Your task to perform on an android device: Add jbl flip 4 to the cart on ebay.com, then select checkout. Image 0: 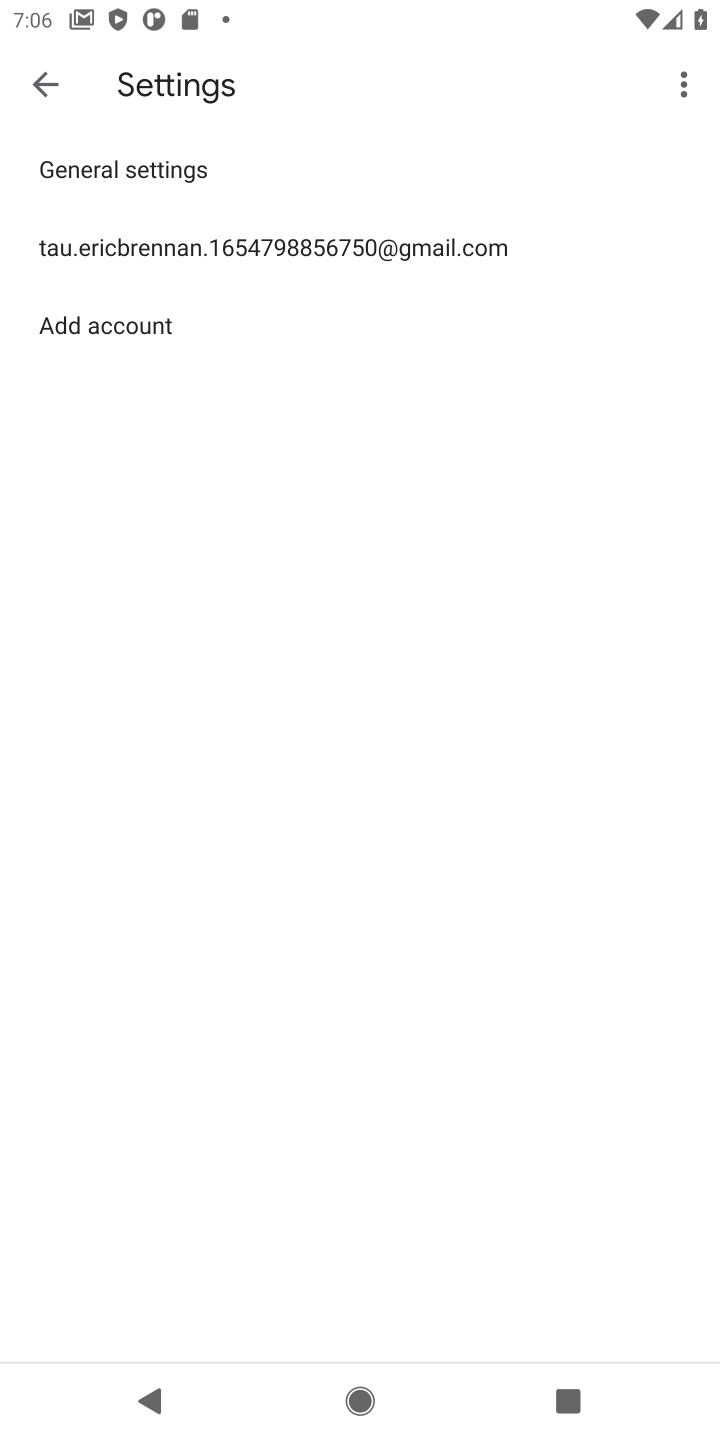
Step 0: press home button
Your task to perform on an android device: Add jbl flip 4 to the cart on ebay.com, then select checkout. Image 1: 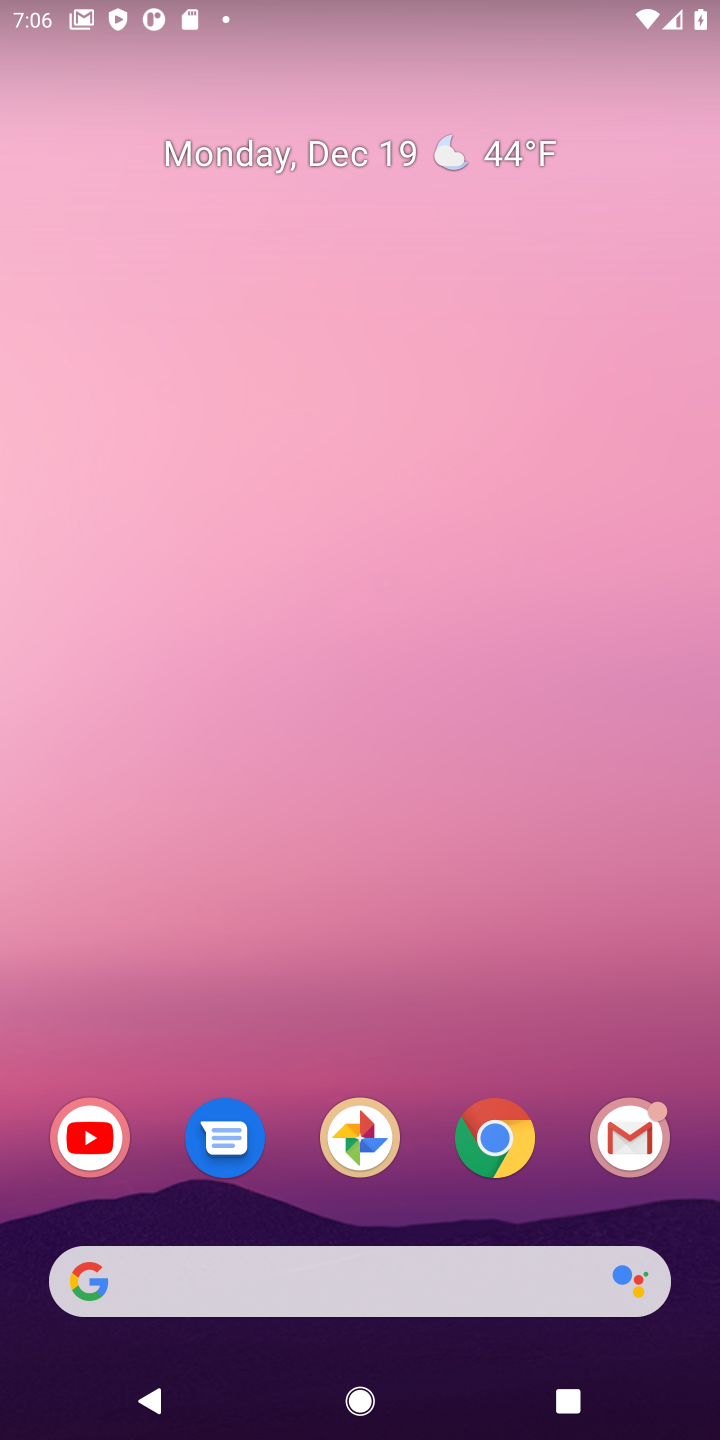
Step 1: click (487, 1154)
Your task to perform on an android device: Add jbl flip 4 to the cart on ebay.com, then select checkout. Image 2: 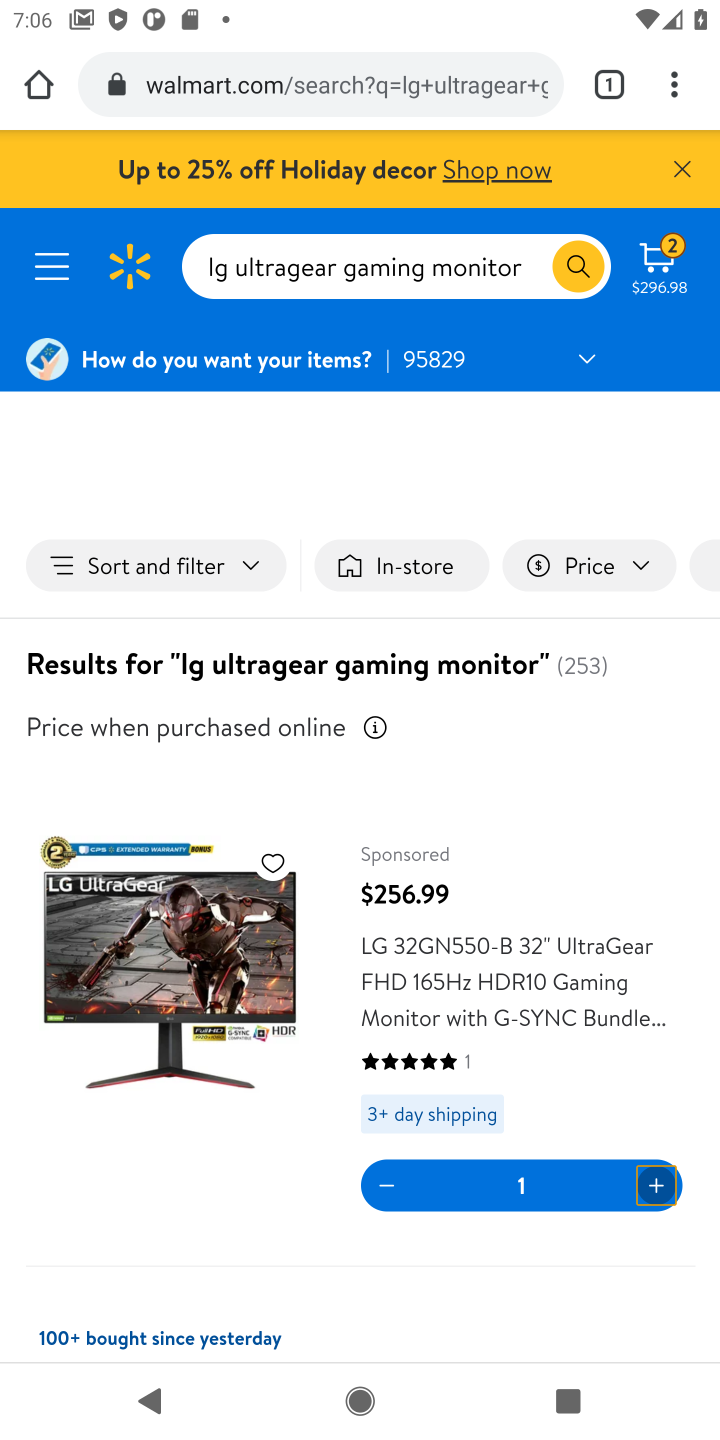
Step 2: click (437, 75)
Your task to perform on an android device: Add jbl flip 4 to the cart on ebay.com, then select checkout. Image 3: 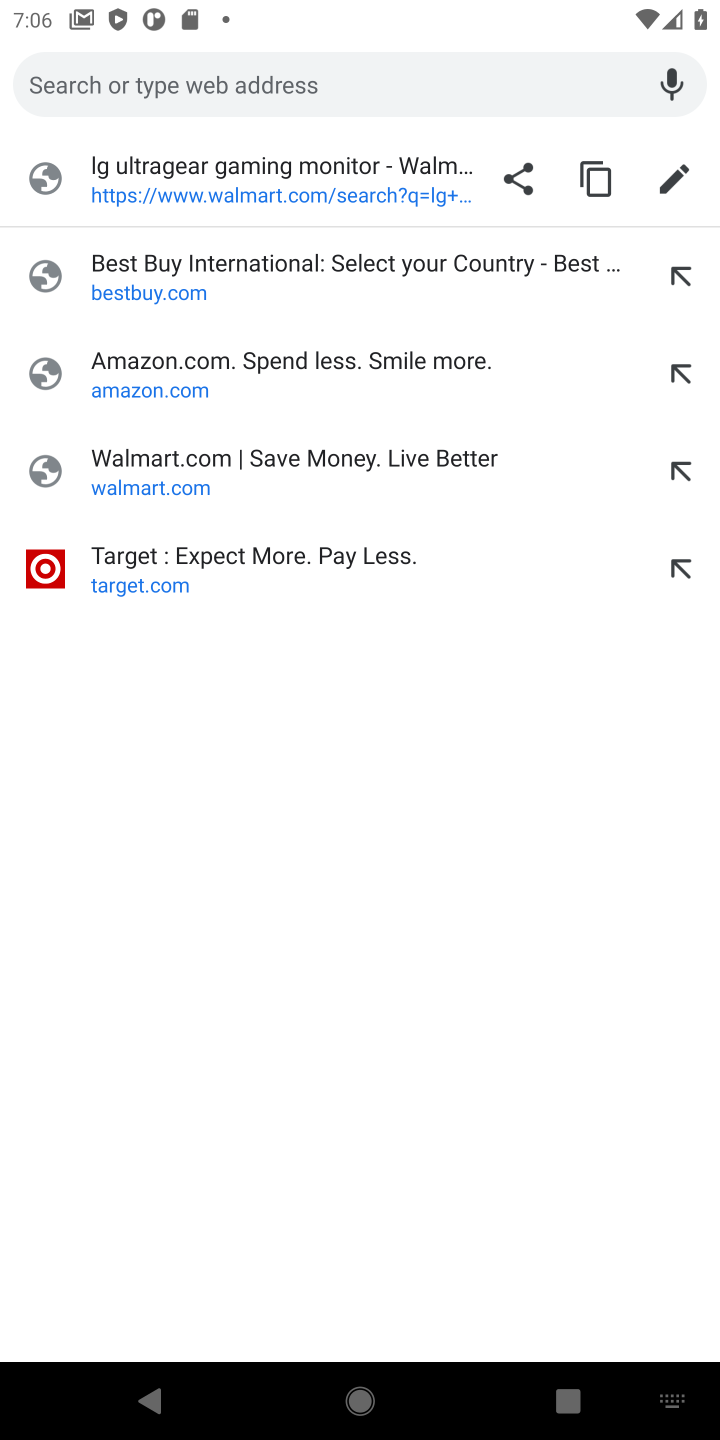
Step 3: type "EBAY"
Your task to perform on an android device: Add jbl flip 4 to the cart on ebay.com, then select checkout. Image 4: 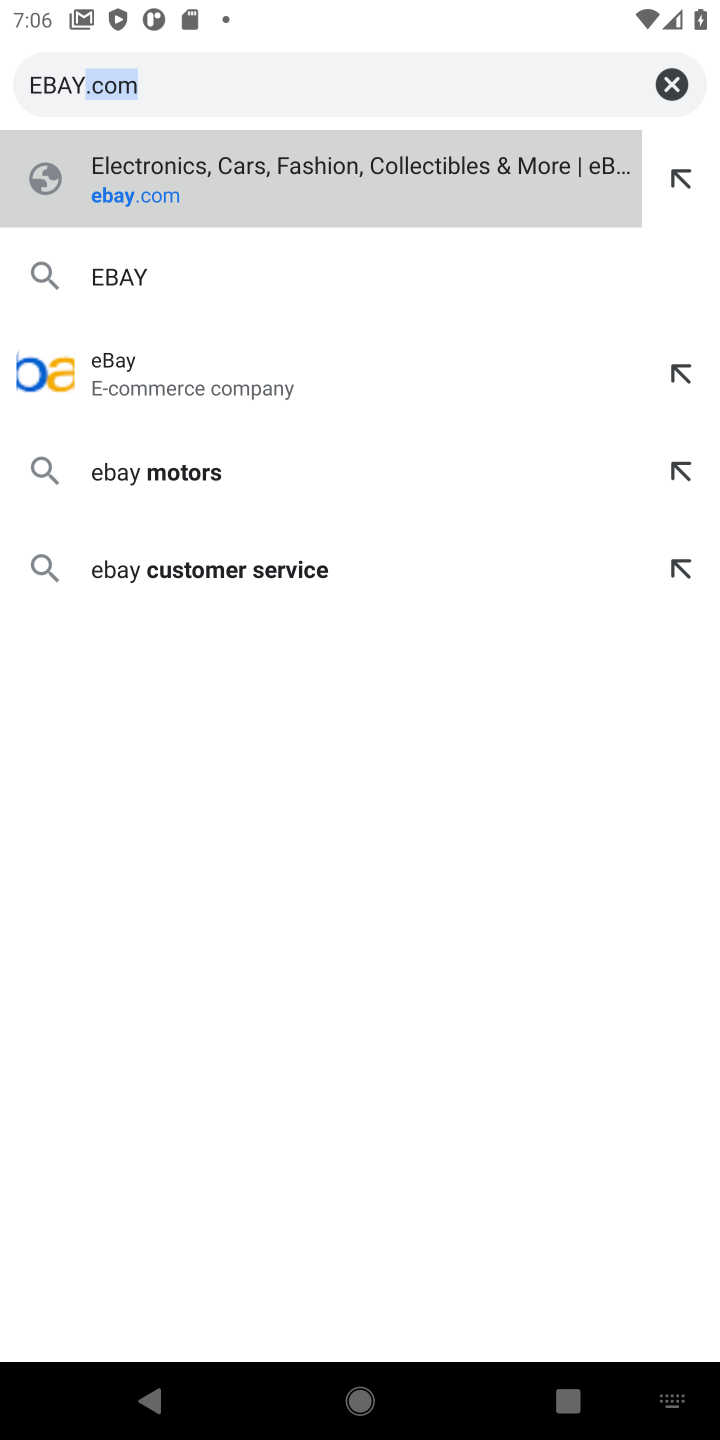
Step 4: click (305, 189)
Your task to perform on an android device: Add jbl flip 4 to the cart on ebay.com, then select checkout. Image 5: 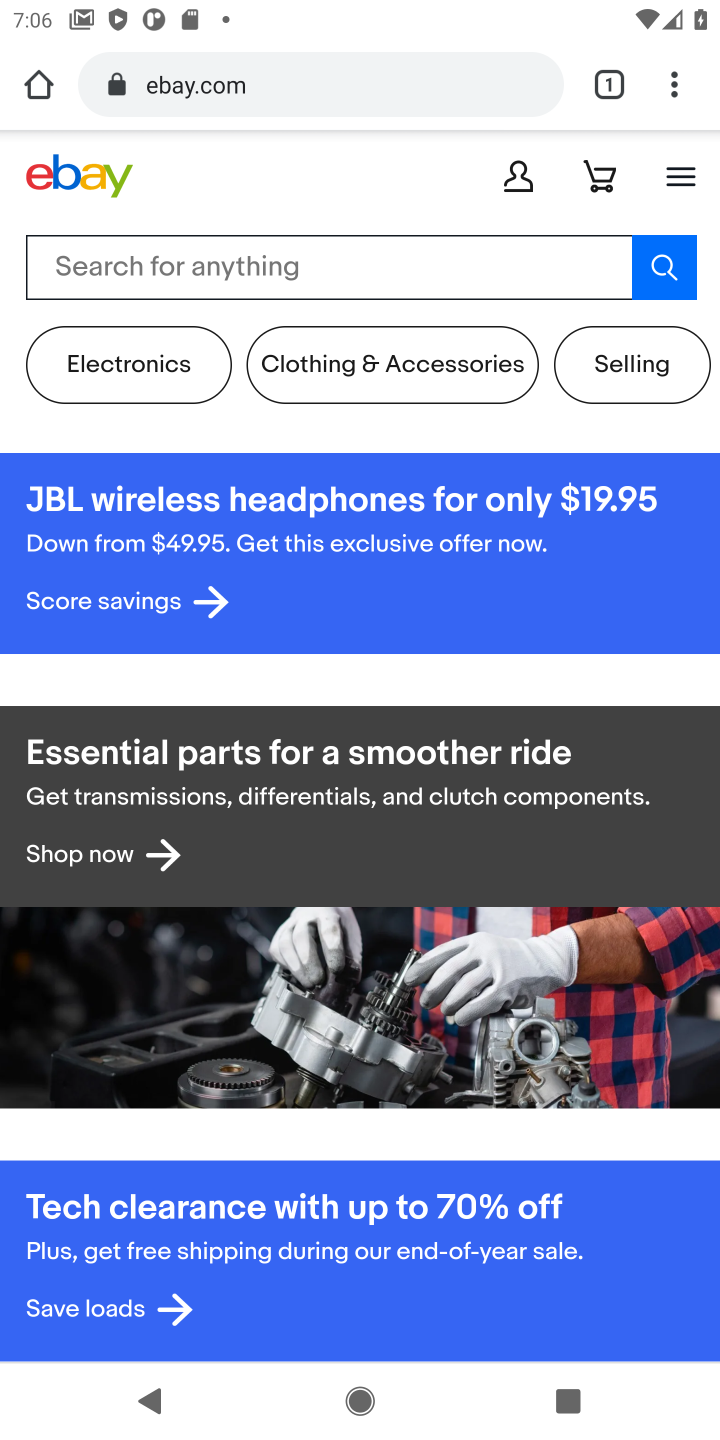
Step 5: click (469, 257)
Your task to perform on an android device: Add jbl flip 4 to the cart on ebay.com, then select checkout. Image 6: 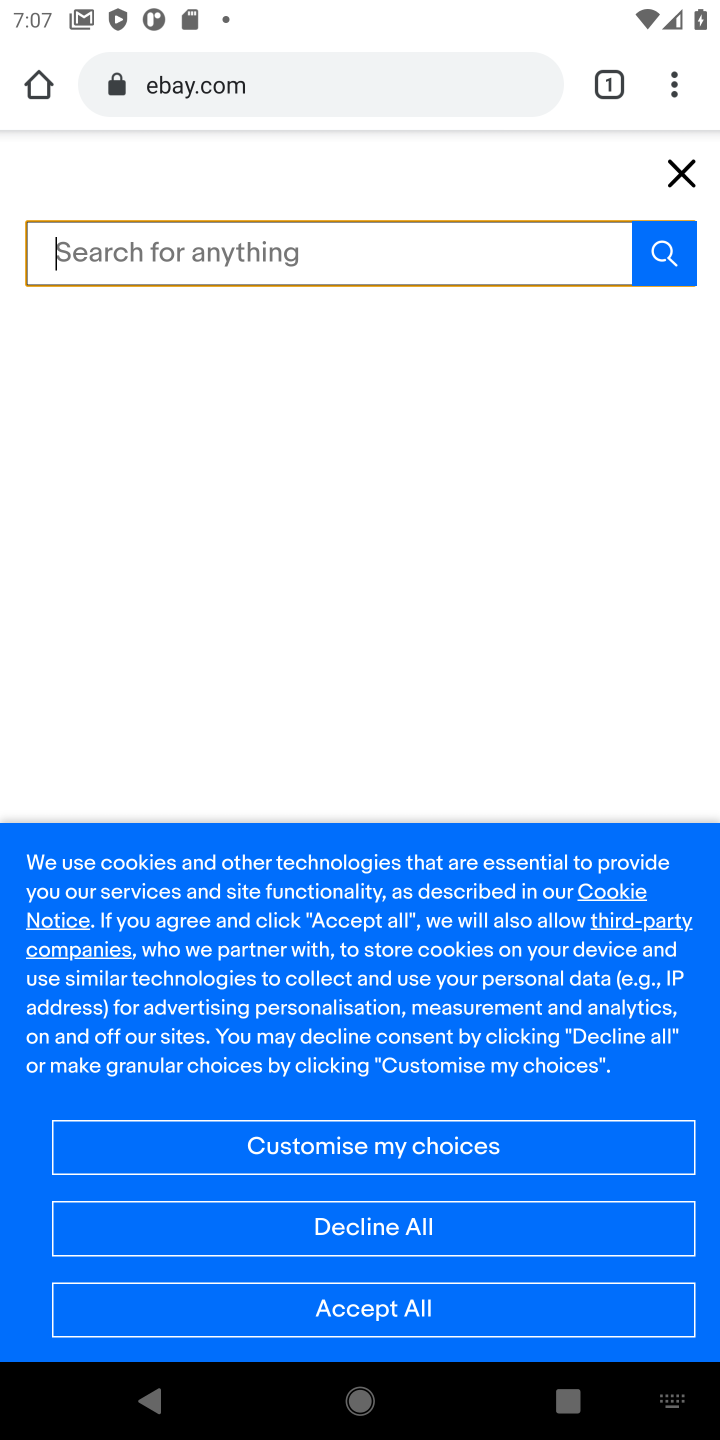
Step 6: click (381, 1304)
Your task to perform on an android device: Add jbl flip 4 to the cart on ebay.com, then select checkout. Image 7: 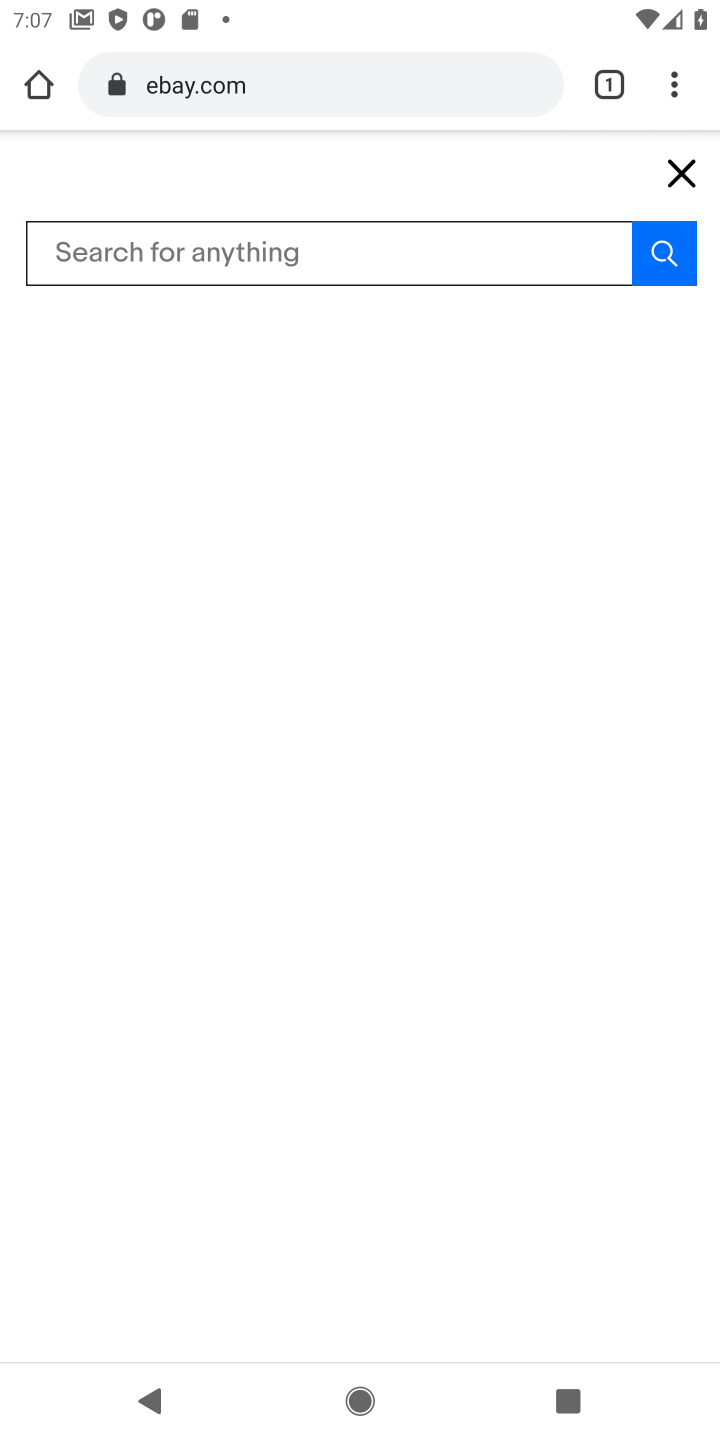
Step 7: click (375, 252)
Your task to perform on an android device: Add jbl flip 4 to the cart on ebay.com, then select checkout. Image 8: 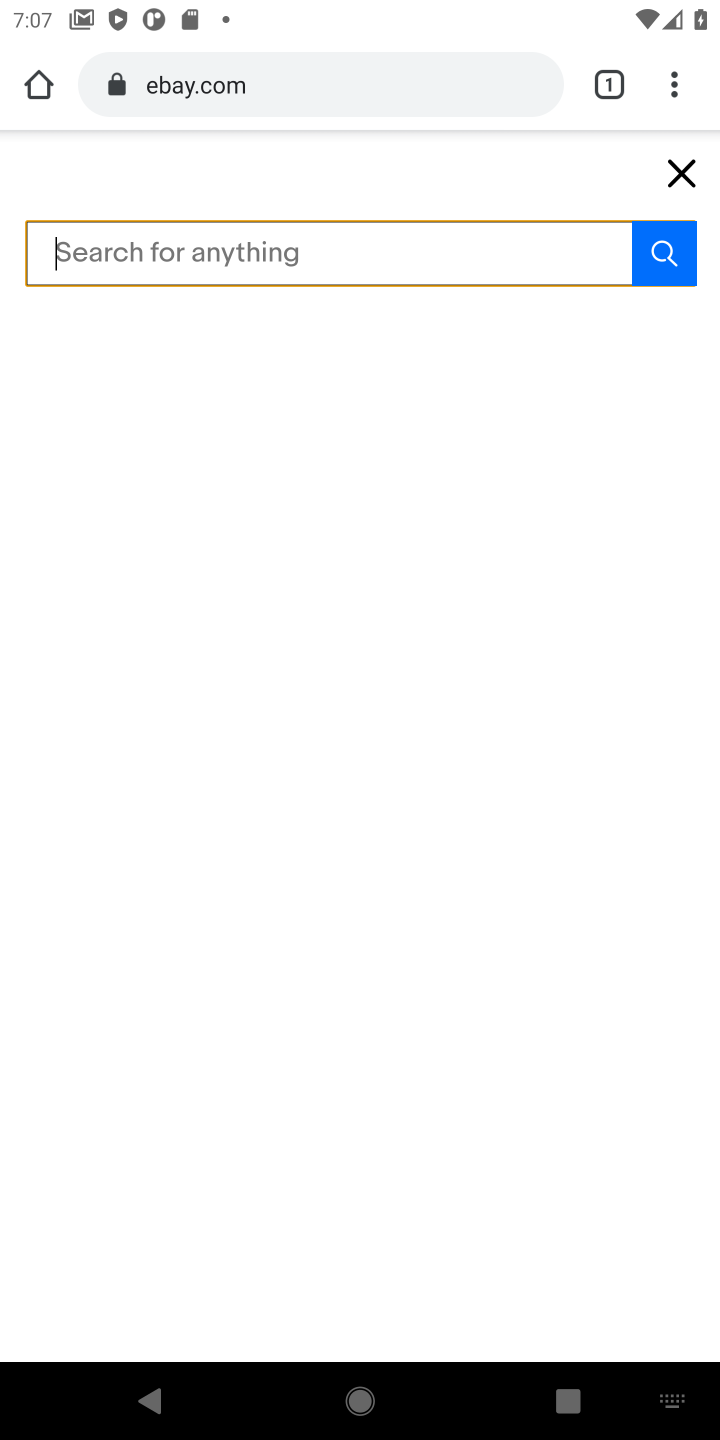
Step 8: type "JBL FLIP 4"
Your task to perform on an android device: Add jbl flip 4 to the cart on ebay.com, then select checkout. Image 9: 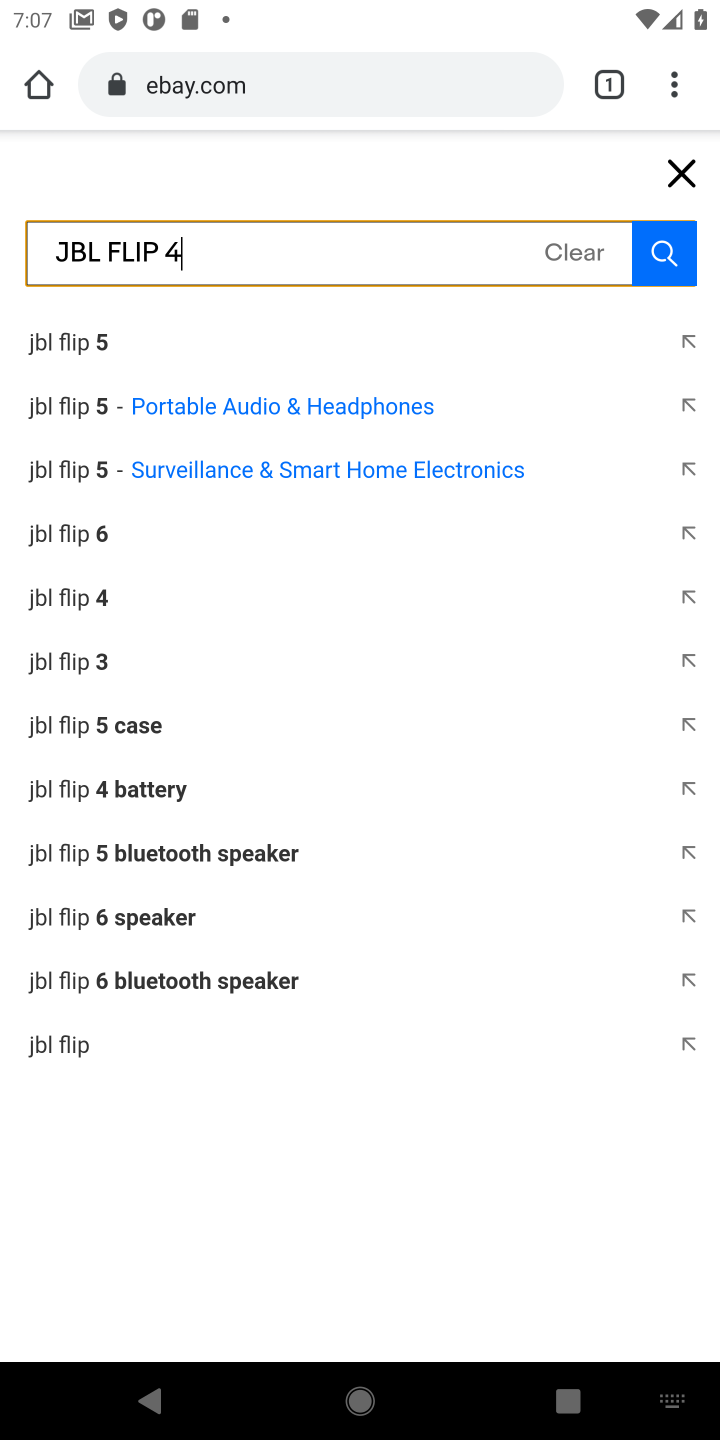
Step 9: click (114, 596)
Your task to perform on an android device: Add jbl flip 4 to the cart on ebay.com, then select checkout. Image 10: 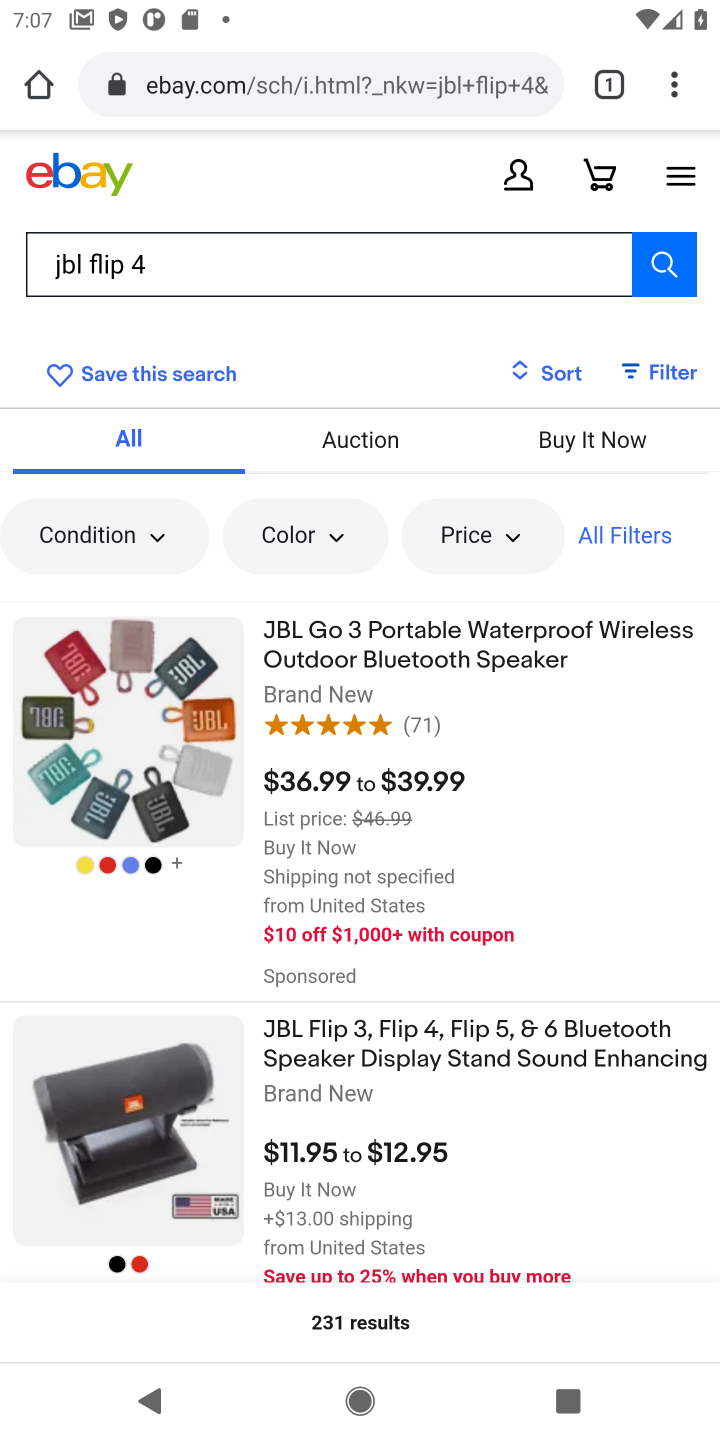
Step 10: click (532, 667)
Your task to perform on an android device: Add jbl flip 4 to the cart on ebay.com, then select checkout. Image 11: 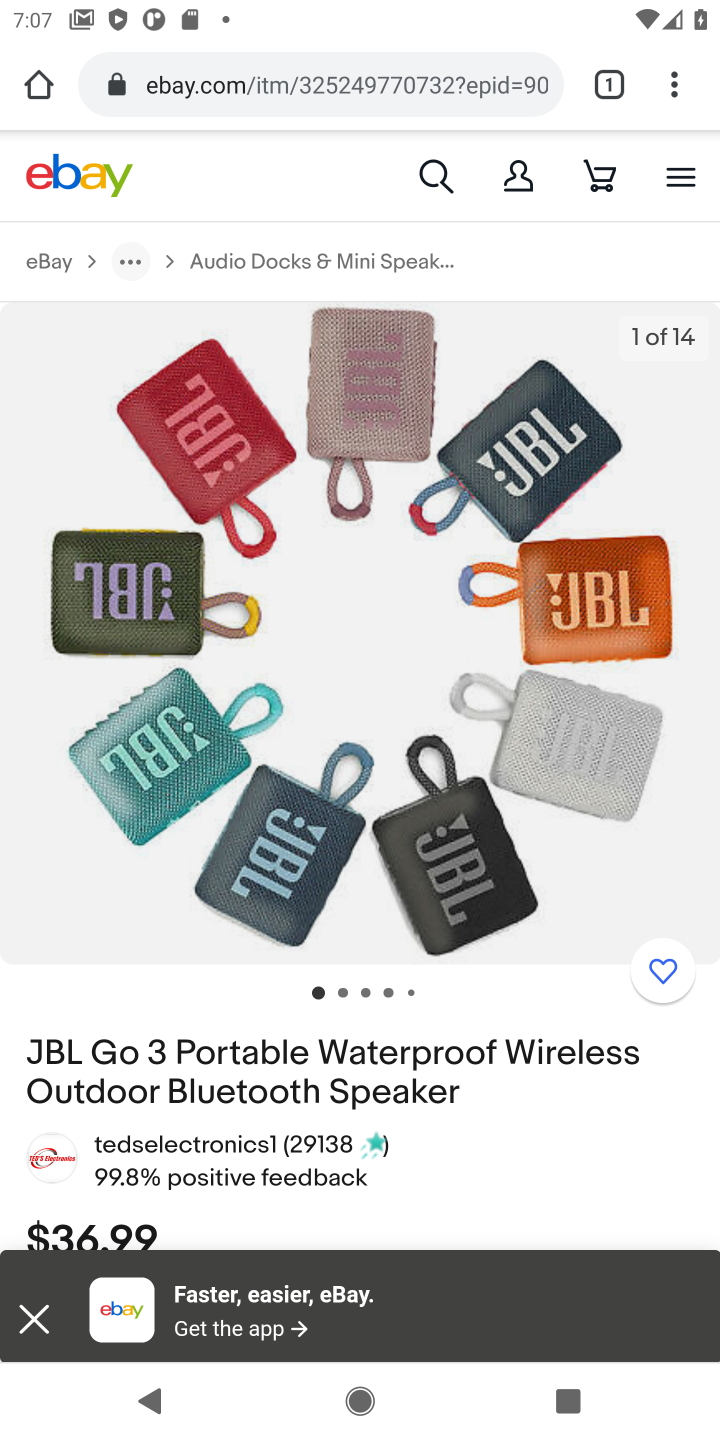
Step 11: drag from (541, 1307) to (443, 664)
Your task to perform on an android device: Add jbl flip 4 to the cart on ebay.com, then select checkout. Image 12: 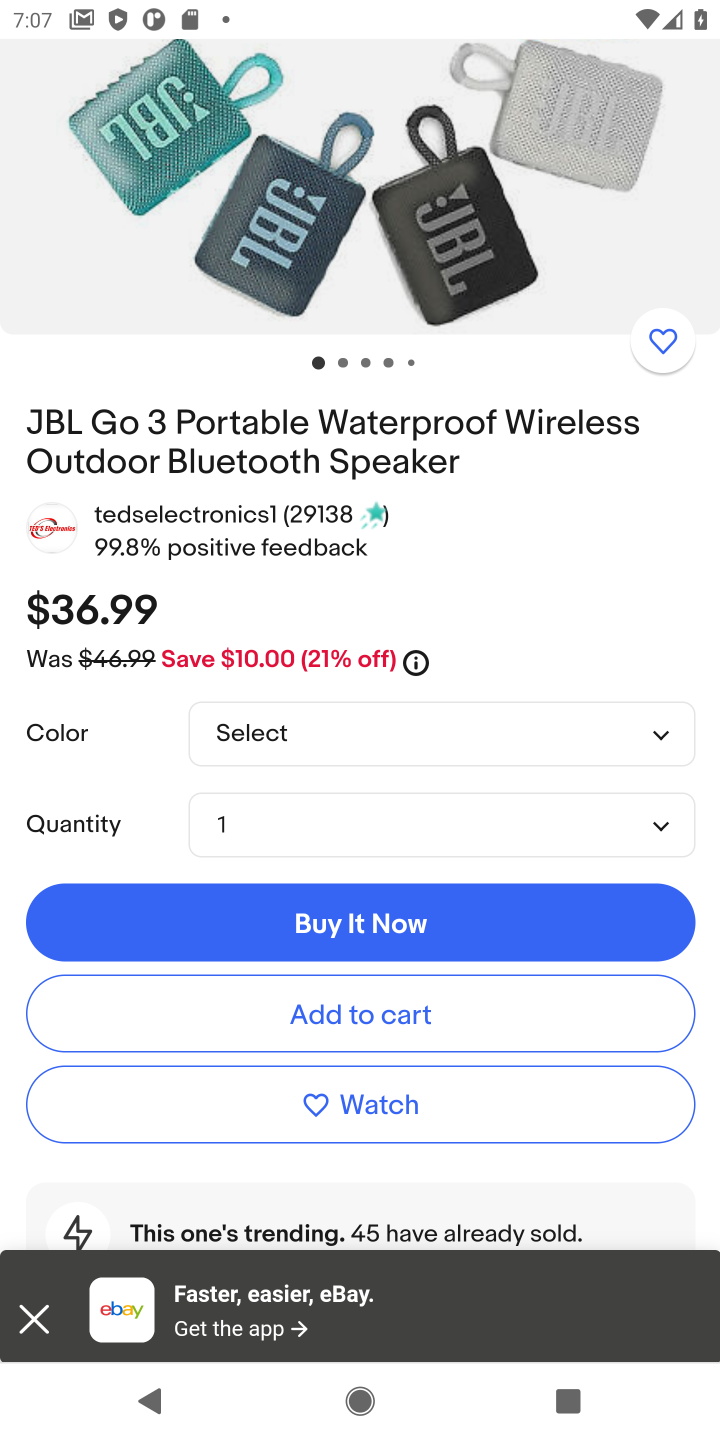
Step 12: click (390, 1022)
Your task to perform on an android device: Add jbl flip 4 to the cart on ebay.com, then select checkout. Image 13: 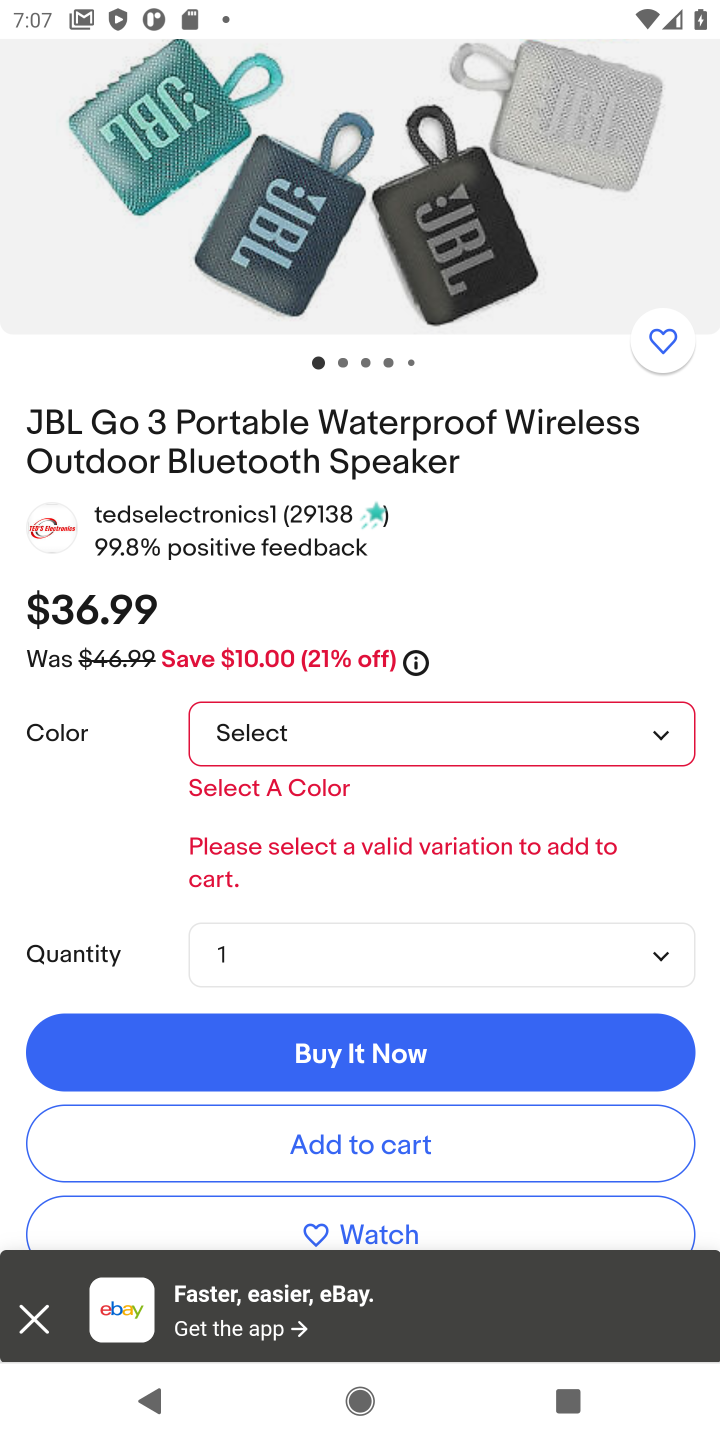
Step 13: click (481, 736)
Your task to perform on an android device: Add jbl flip 4 to the cart on ebay.com, then select checkout. Image 14: 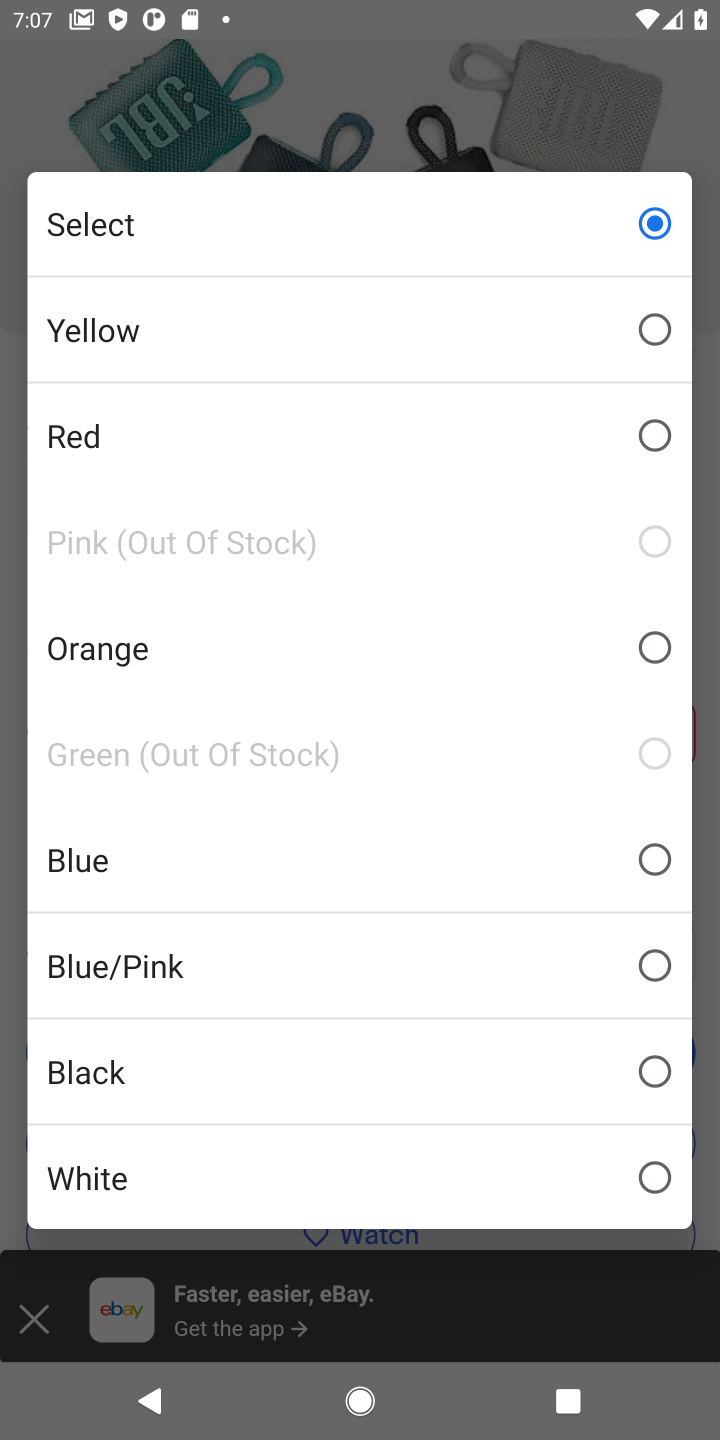
Step 14: click (198, 343)
Your task to perform on an android device: Add jbl flip 4 to the cart on ebay.com, then select checkout. Image 15: 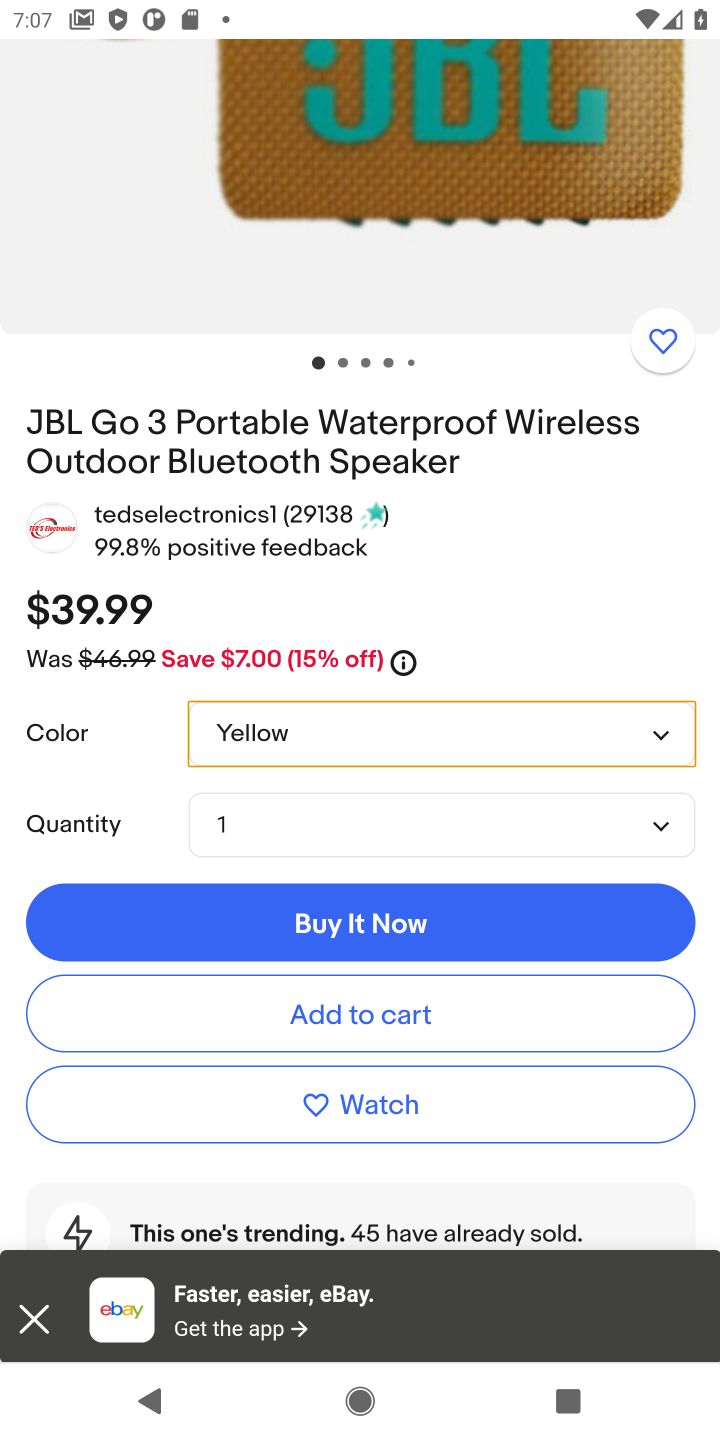
Step 15: click (390, 1016)
Your task to perform on an android device: Add jbl flip 4 to the cart on ebay.com, then select checkout. Image 16: 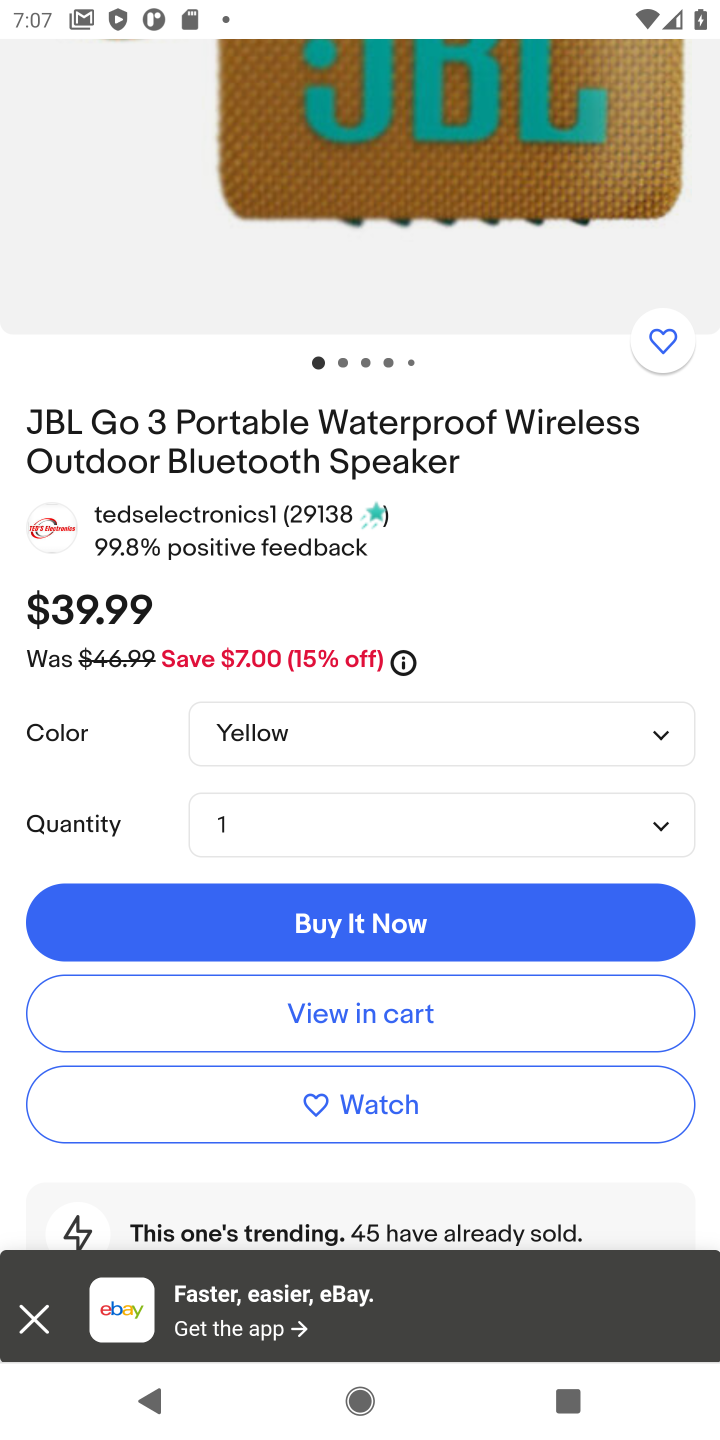
Step 16: click (390, 1016)
Your task to perform on an android device: Add jbl flip 4 to the cart on ebay.com, then select checkout. Image 17: 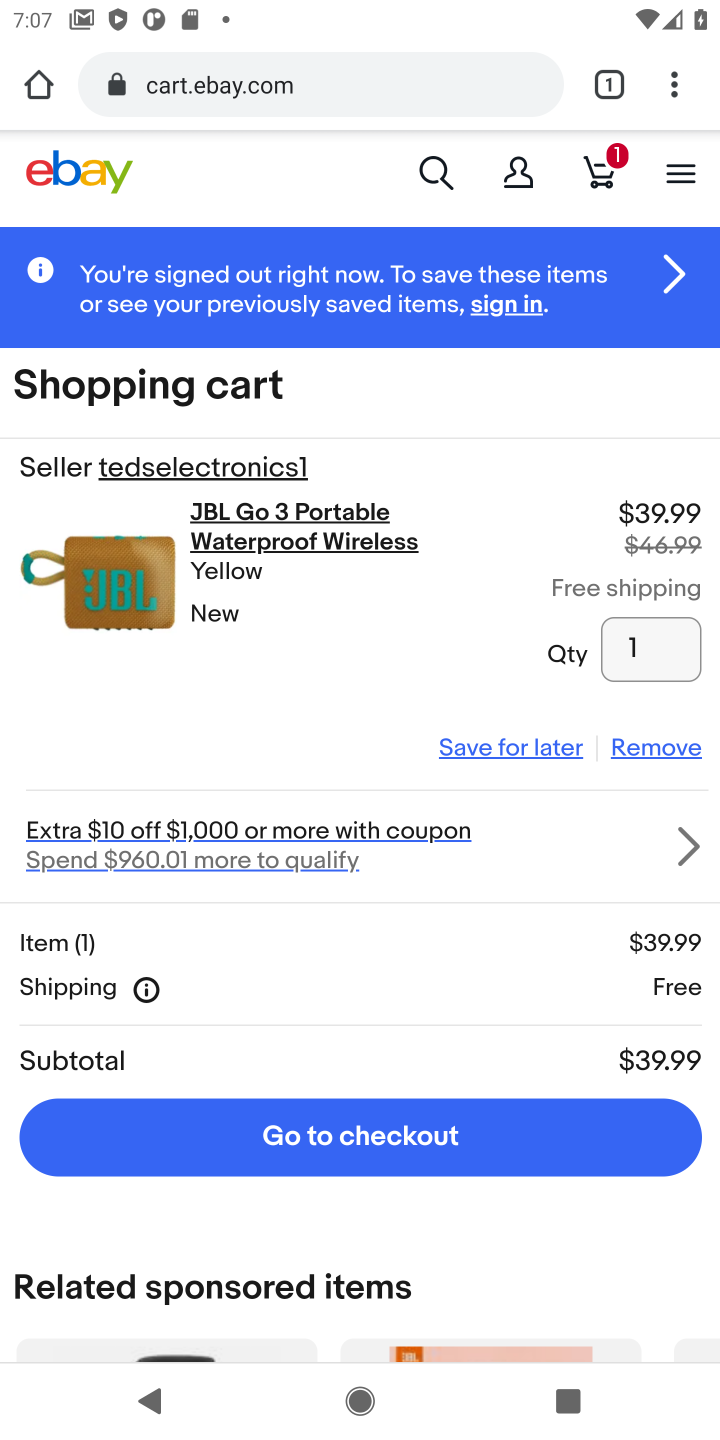
Step 17: click (377, 1137)
Your task to perform on an android device: Add jbl flip 4 to the cart on ebay.com, then select checkout. Image 18: 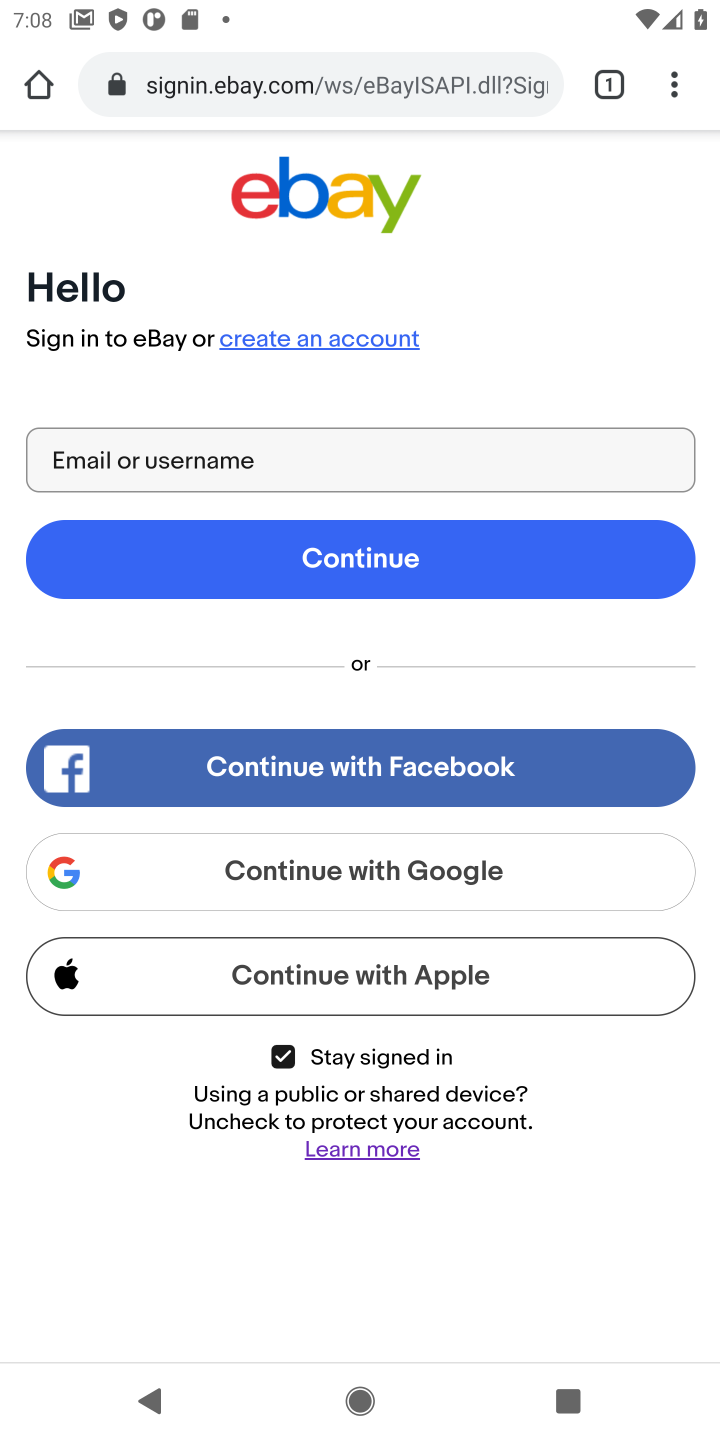
Step 18: task complete